Your task to perform on an android device: Open the Play Movies app and select the watchlist tab. Image 0: 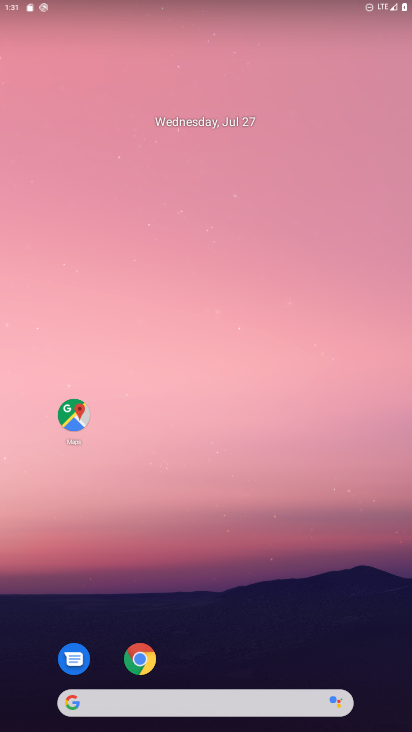
Step 0: drag from (205, 622) to (242, 406)
Your task to perform on an android device: Open the Play Movies app and select the watchlist tab. Image 1: 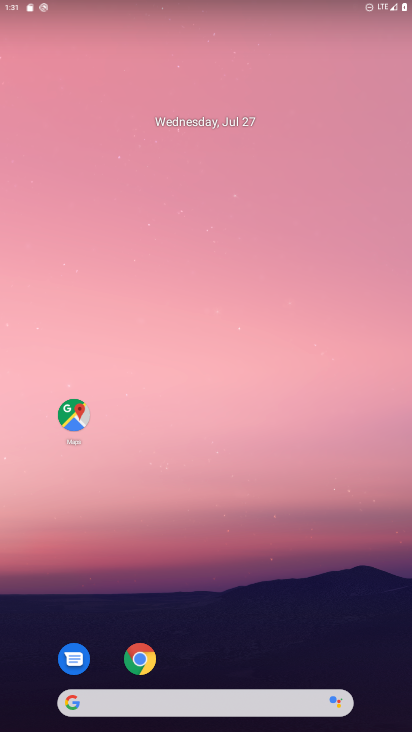
Step 1: drag from (193, 666) to (204, 138)
Your task to perform on an android device: Open the Play Movies app and select the watchlist tab. Image 2: 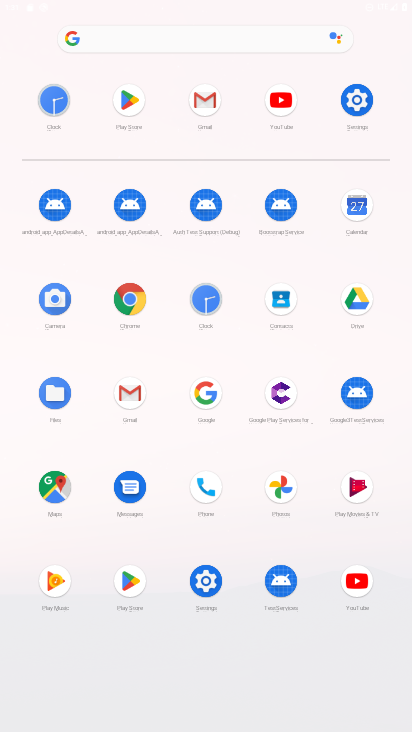
Step 2: click (361, 487)
Your task to perform on an android device: Open the Play Movies app and select the watchlist tab. Image 3: 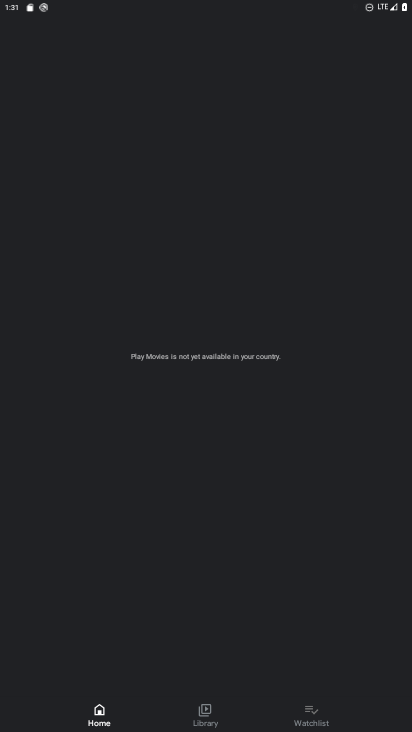
Step 3: click (222, 721)
Your task to perform on an android device: Open the Play Movies app and select the watchlist tab. Image 4: 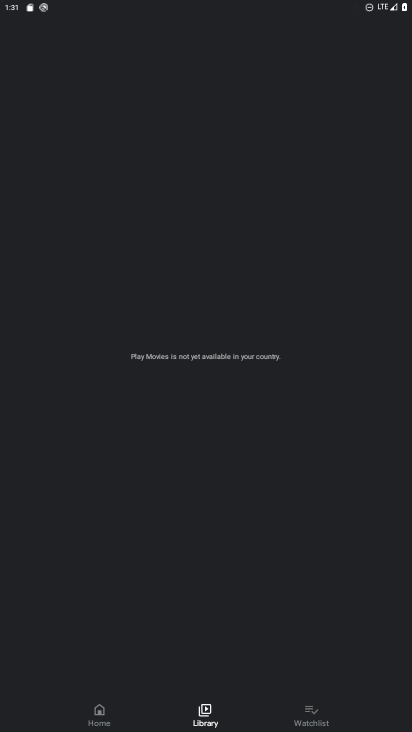
Step 4: click (304, 708)
Your task to perform on an android device: Open the Play Movies app and select the watchlist tab. Image 5: 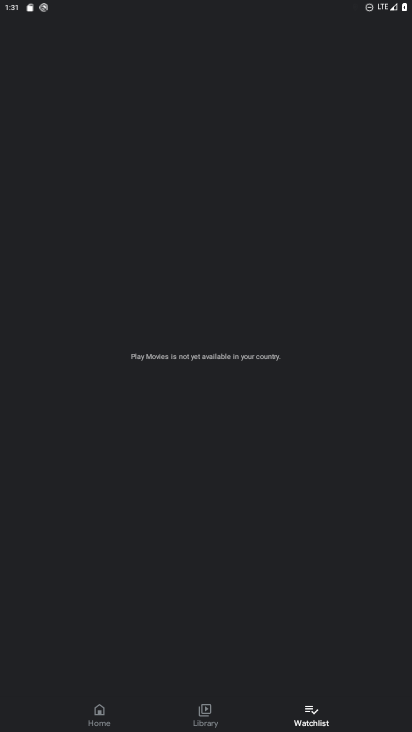
Step 5: click (302, 104)
Your task to perform on an android device: Open the Play Movies app and select the watchlist tab. Image 6: 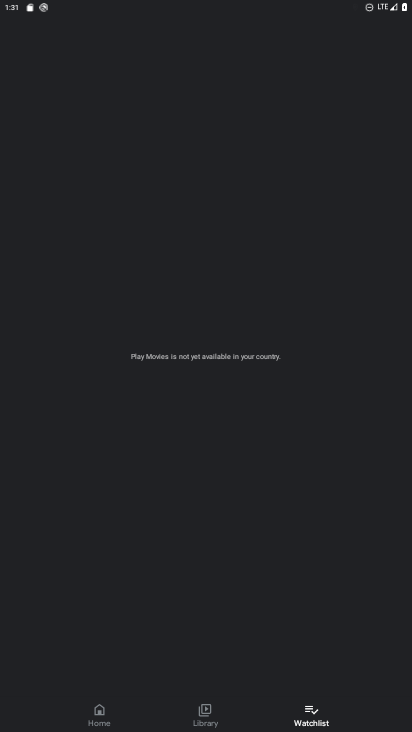
Step 6: drag from (294, 10) to (333, 176)
Your task to perform on an android device: Open the Play Movies app and select the watchlist tab. Image 7: 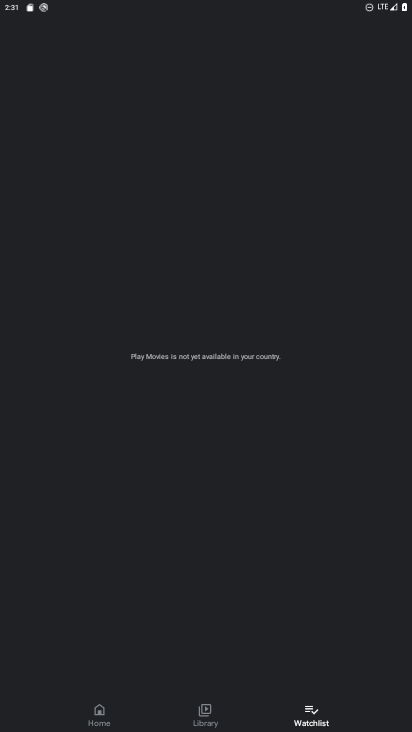
Step 7: click (214, 716)
Your task to perform on an android device: Open the Play Movies app and select the watchlist tab. Image 8: 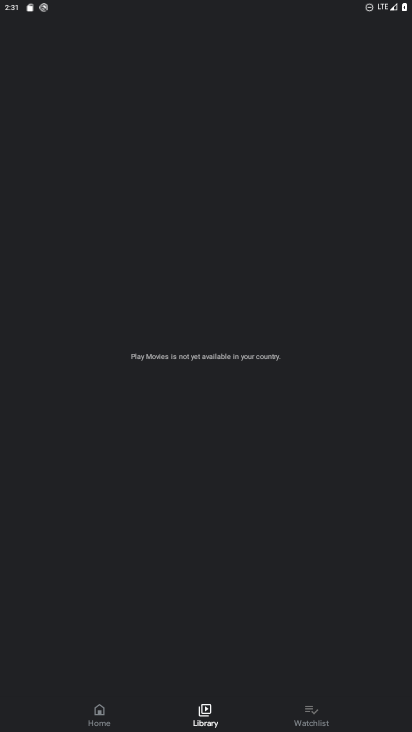
Step 8: click (309, 720)
Your task to perform on an android device: Open the Play Movies app and select the watchlist tab. Image 9: 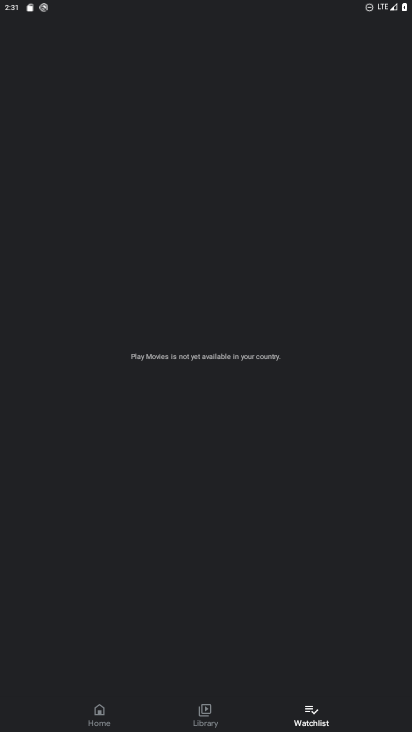
Step 9: click (296, 543)
Your task to perform on an android device: Open the Play Movies app and select the watchlist tab. Image 10: 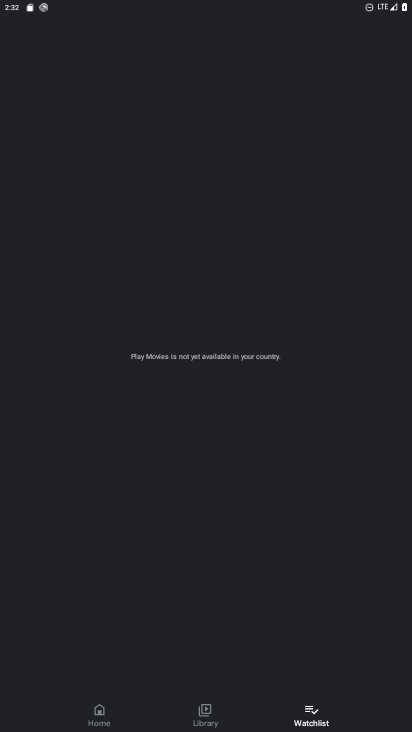
Step 10: click (91, 703)
Your task to perform on an android device: Open the Play Movies app and select the watchlist tab. Image 11: 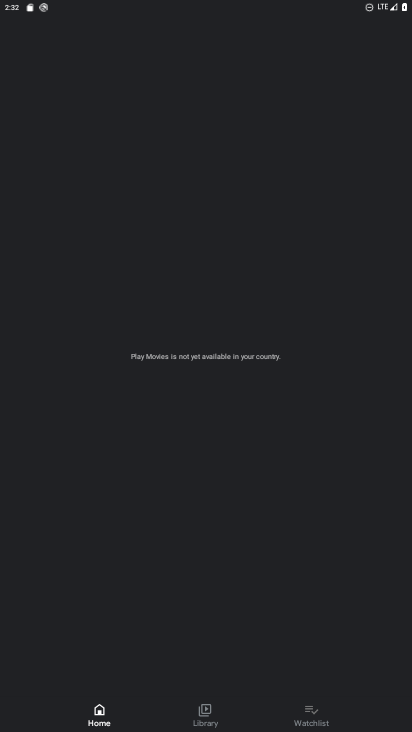
Step 11: click (322, 719)
Your task to perform on an android device: Open the Play Movies app and select the watchlist tab. Image 12: 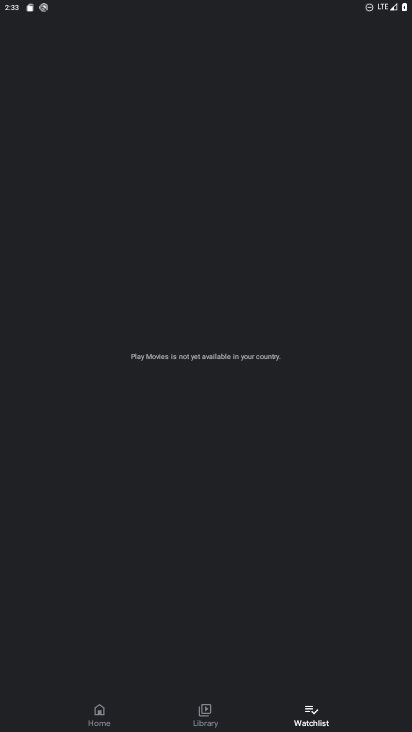
Step 12: task complete